Your task to perform on an android device: Open eBay Image 0: 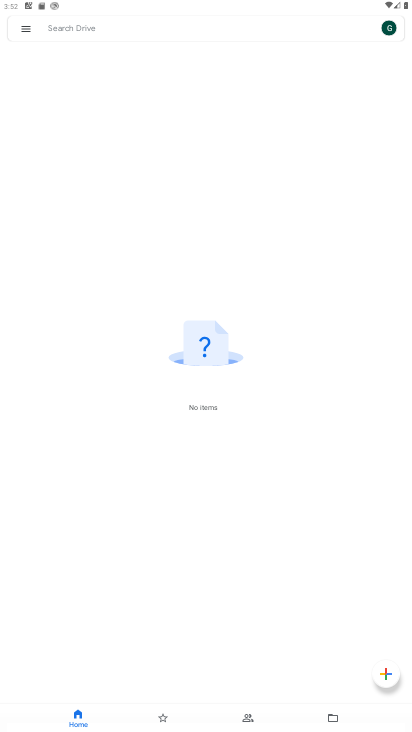
Step 0: press home button
Your task to perform on an android device: Open eBay Image 1: 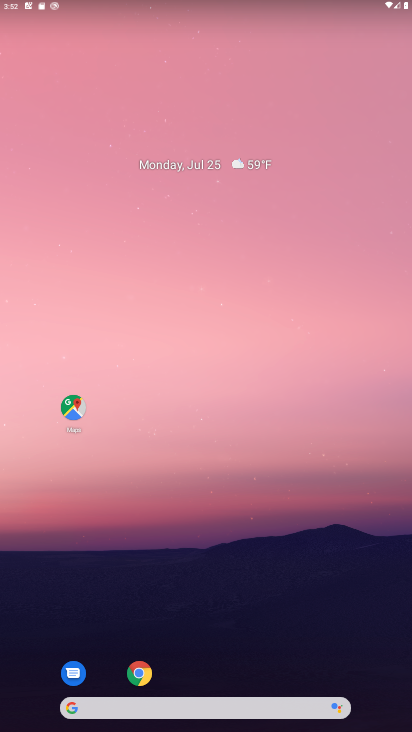
Step 1: click (135, 681)
Your task to perform on an android device: Open eBay Image 2: 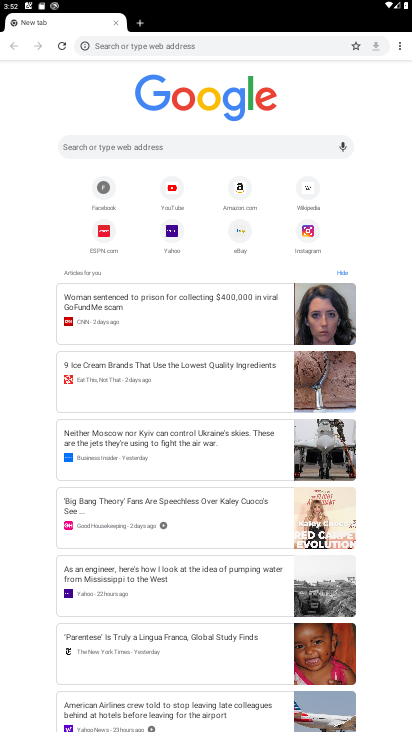
Step 2: click (241, 230)
Your task to perform on an android device: Open eBay Image 3: 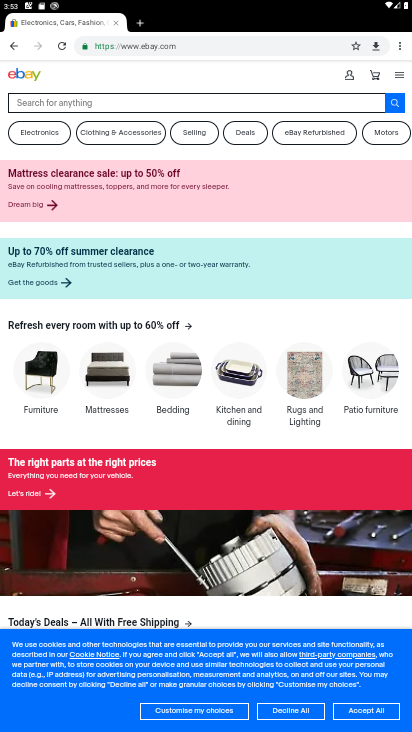
Step 3: task complete